Your task to perform on an android device: Go to Google maps Image 0: 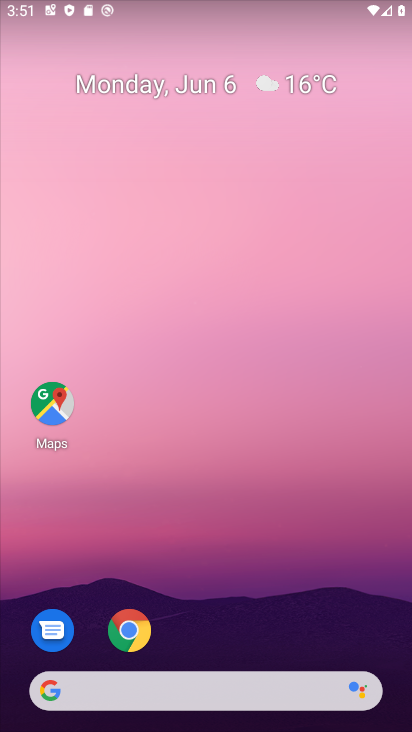
Step 0: click (61, 403)
Your task to perform on an android device: Go to Google maps Image 1: 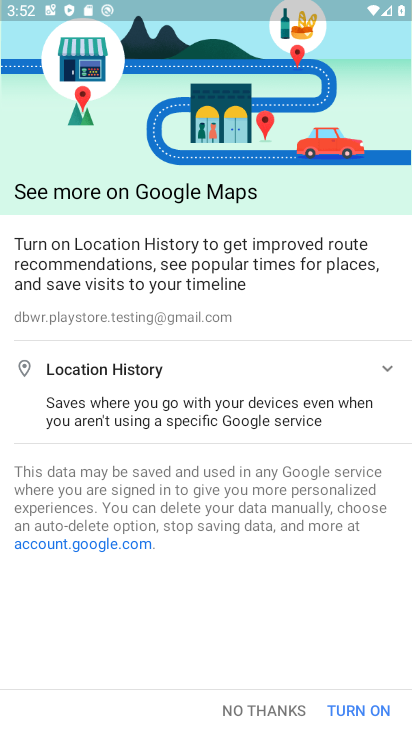
Step 1: click (271, 711)
Your task to perform on an android device: Go to Google maps Image 2: 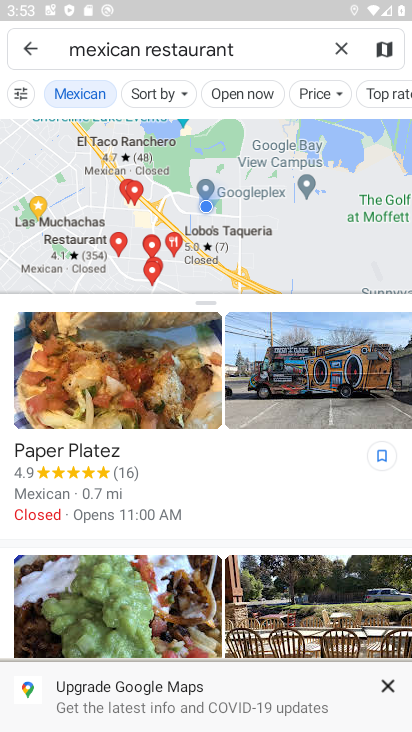
Step 2: task complete